Your task to perform on an android device: toggle airplane mode Image 0: 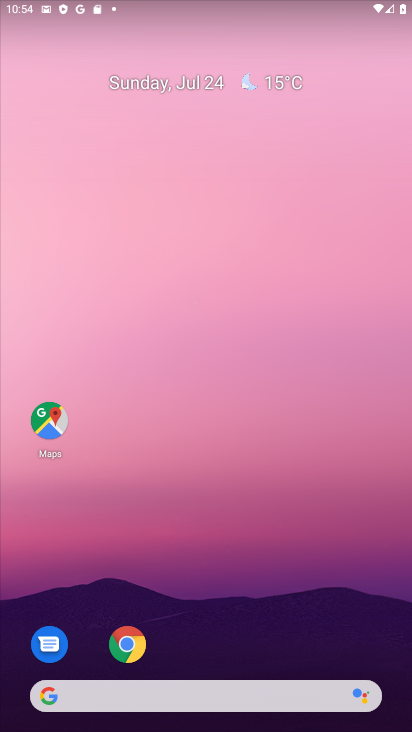
Step 0: drag from (228, 718) to (175, 242)
Your task to perform on an android device: toggle airplane mode Image 1: 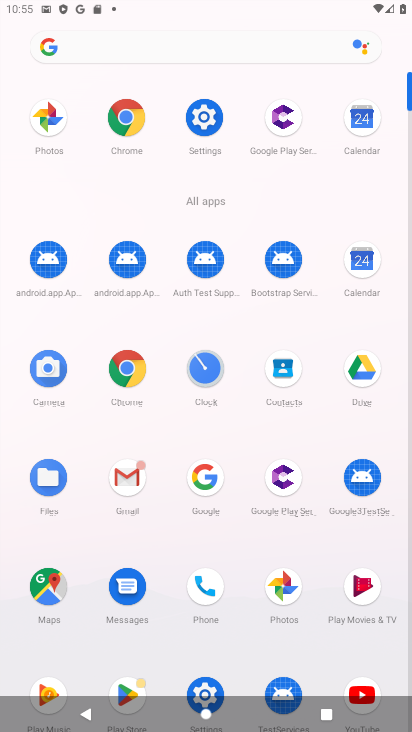
Step 1: click (209, 113)
Your task to perform on an android device: toggle airplane mode Image 2: 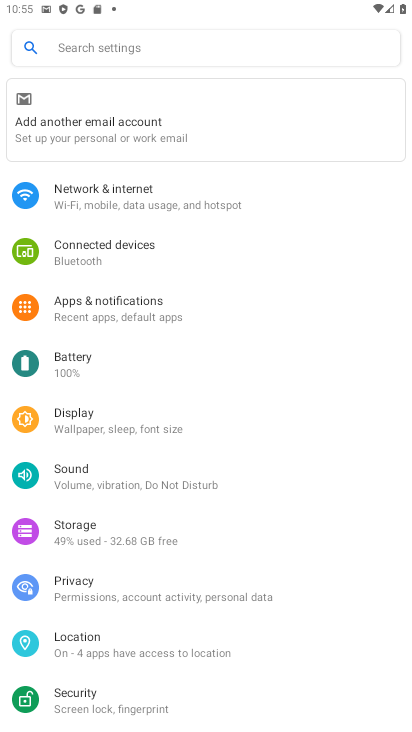
Step 2: click (115, 180)
Your task to perform on an android device: toggle airplane mode Image 3: 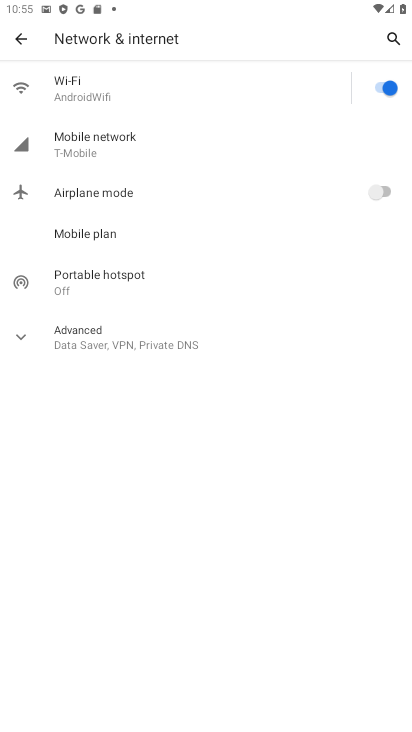
Step 3: click (382, 192)
Your task to perform on an android device: toggle airplane mode Image 4: 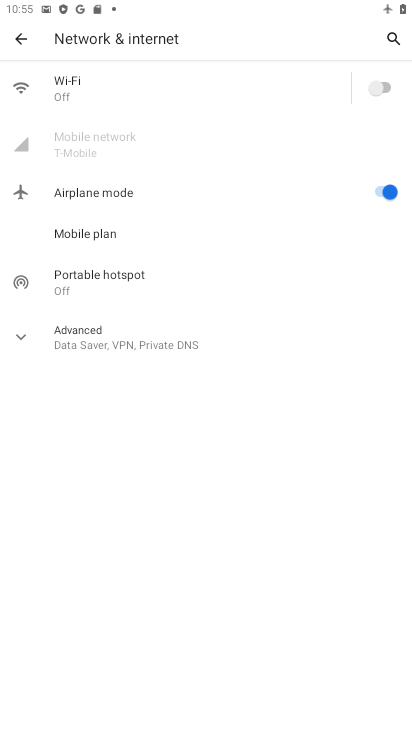
Step 4: task complete